Your task to perform on an android device: Turn off the flashlight Image 0: 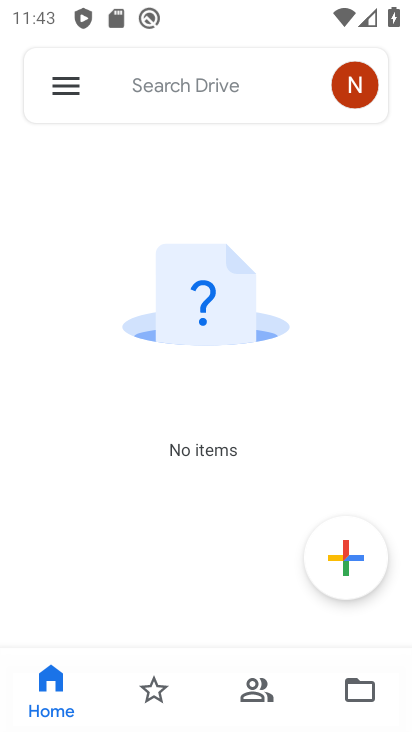
Step 0: press home button
Your task to perform on an android device: Turn off the flashlight Image 1: 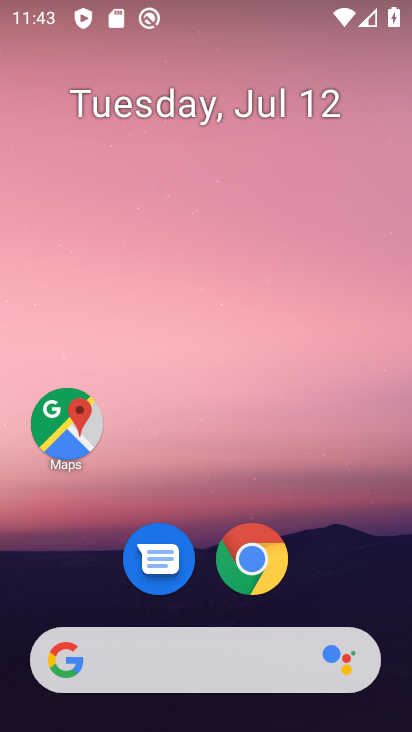
Step 1: task complete